Your task to perform on an android device: Go to Maps Image 0: 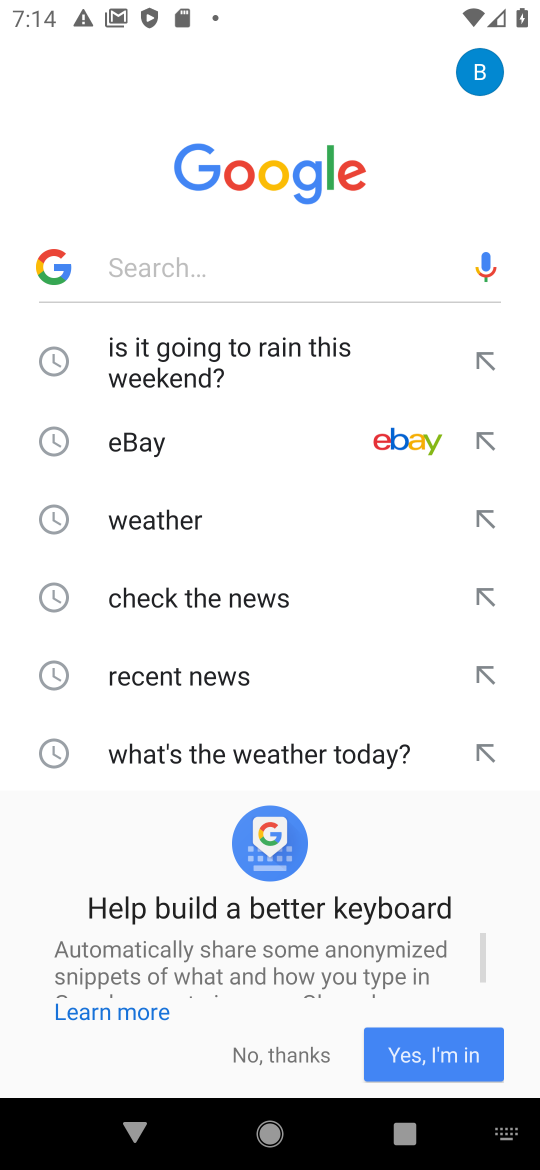
Step 0: press home button
Your task to perform on an android device: Go to Maps Image 1: 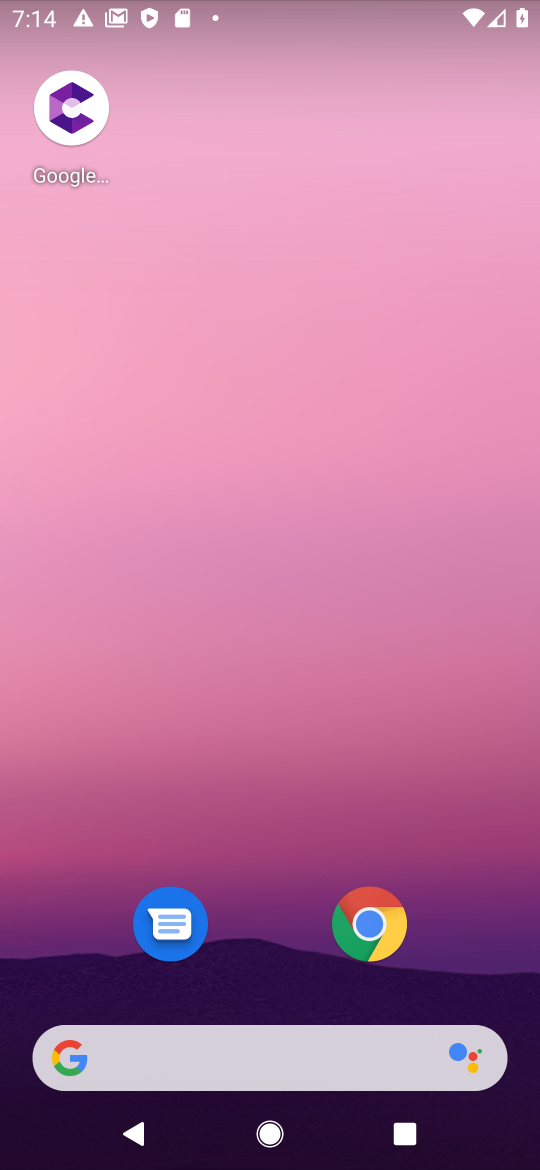
Step 1: drag from (387, 1072) to (337, 213)
Your task to perform on an android device: Go to Maps Image 2: 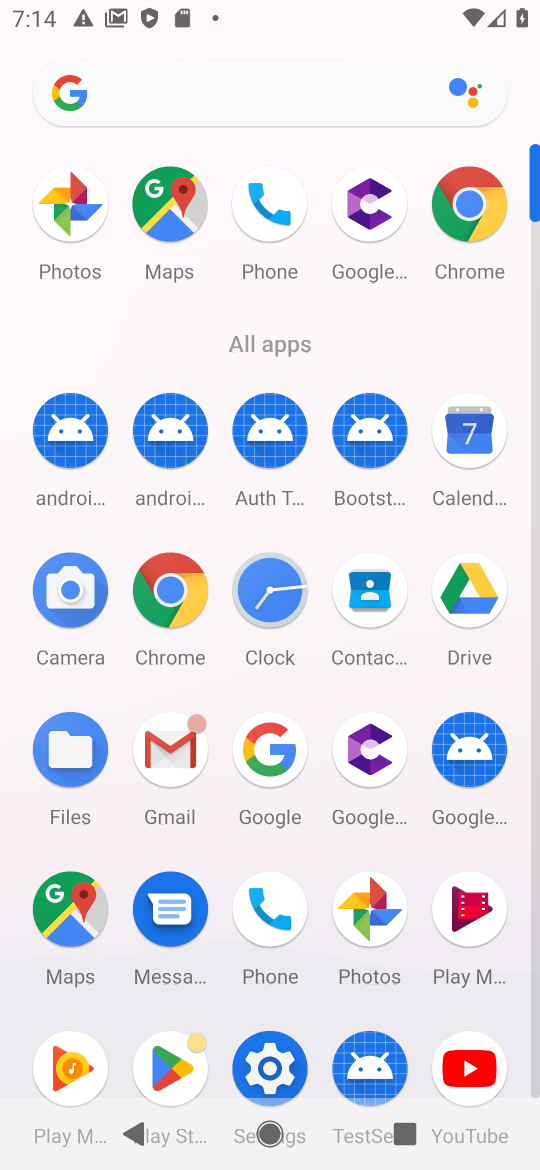
Step 2: click (147, 215)
Your task to perform on an android device: Go to Maps Image 3: 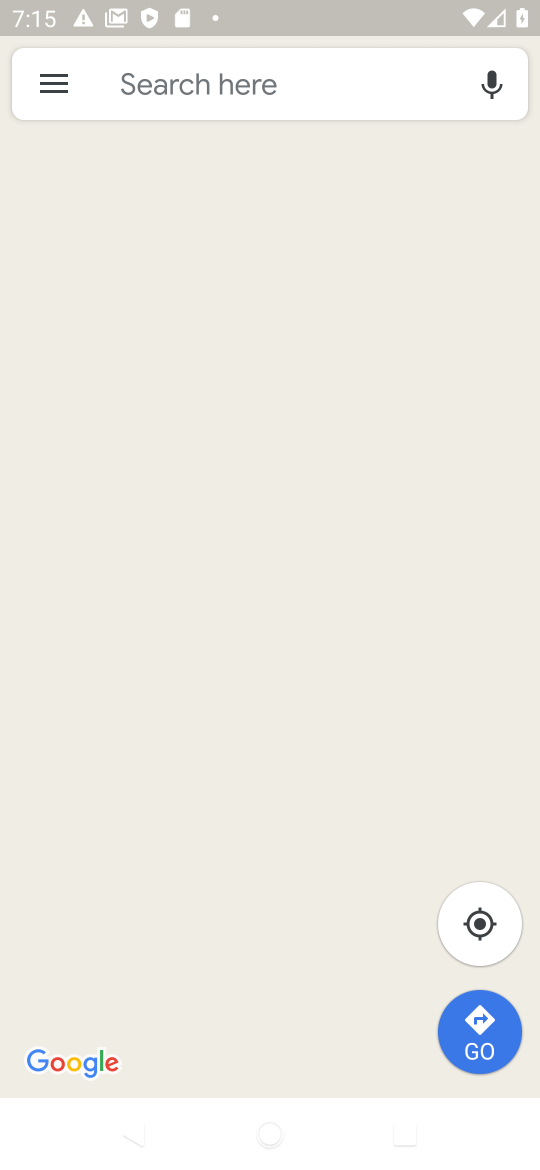
Step 3: click (478, 917)
Your task to perform on an android device: Go to Maps Image 4: 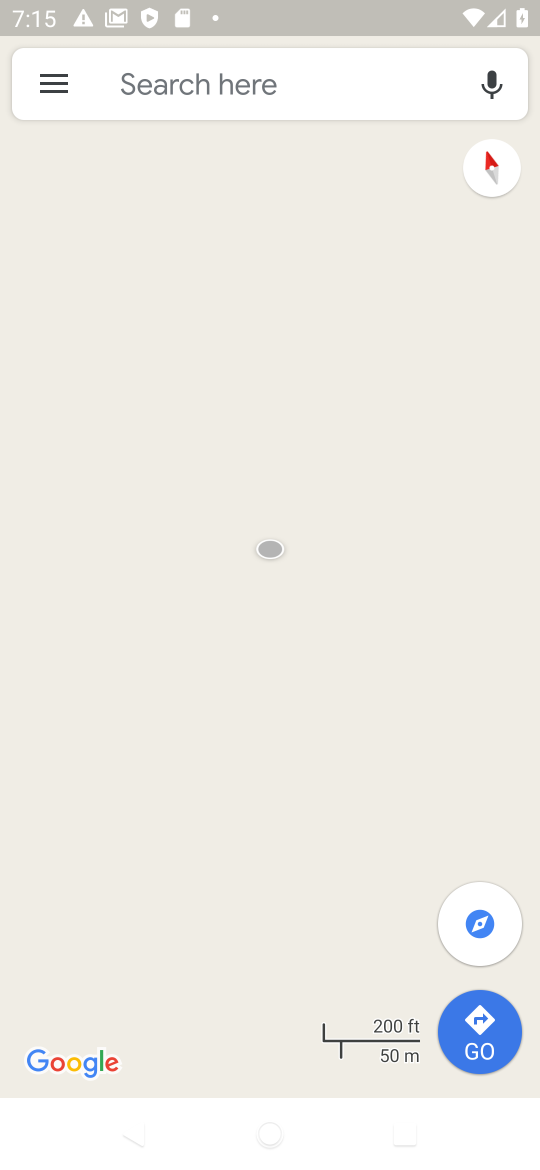
Step 4: click (478, 909)
Your task to perform on an android device: Go to Maps Image 5: 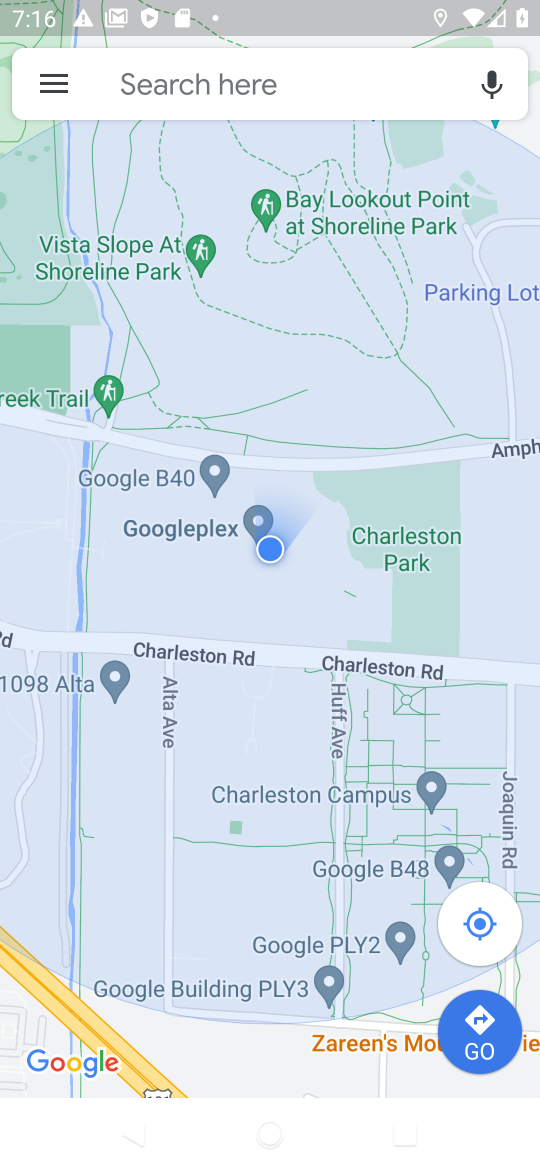
Step 5: task complete